Your task to perform on an android device: Turn off the flashlight Image 0: 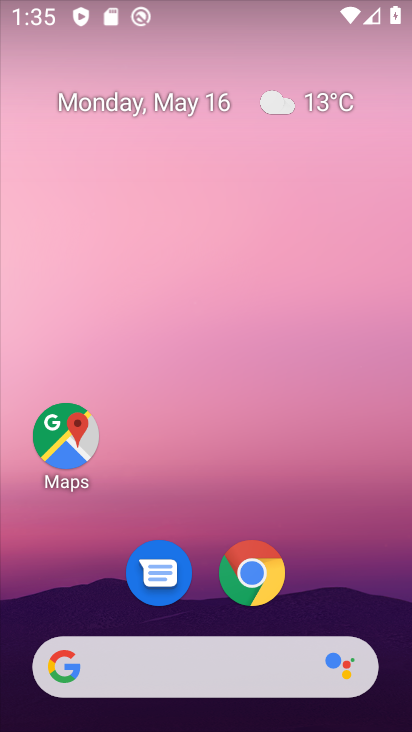
Step 0: drag from (209, 625) to (188, 34)
Your task to perform on an android device: Turn off the flashlight Image 1: 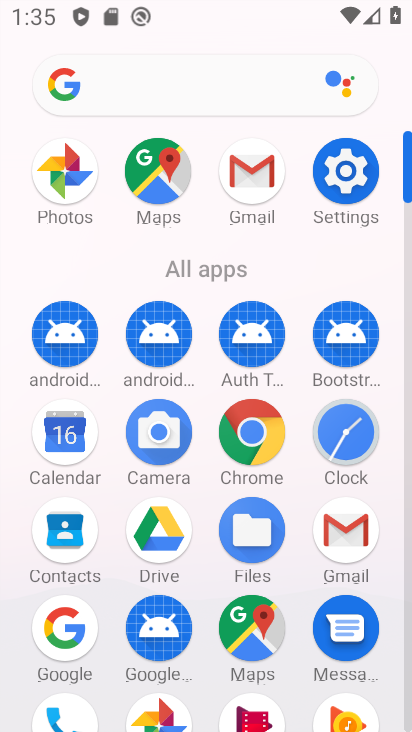
Step 1: click (352, 187)
Your task to perform on an android device: Turn off the flashlight Image 2: 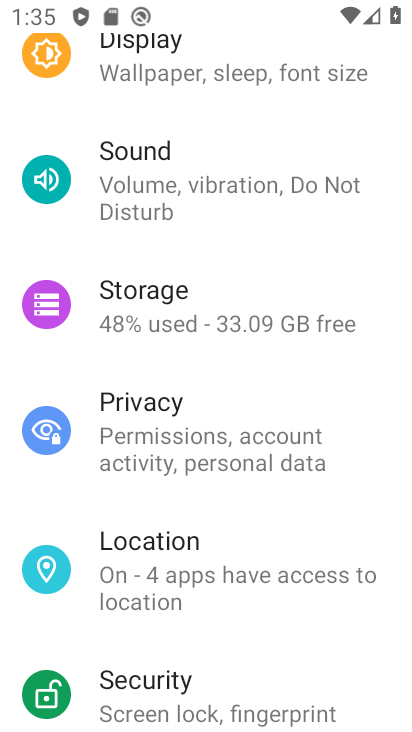
Step 2: task complete